Your task to perform on an android device: delete location history Image 0: 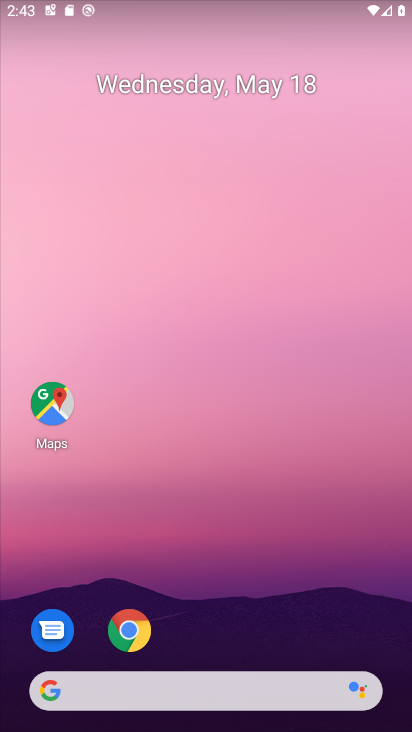
Step 0: drag from (208, 632) to (281, 97)
Your task to perform on an android device: delete location history Image 1: 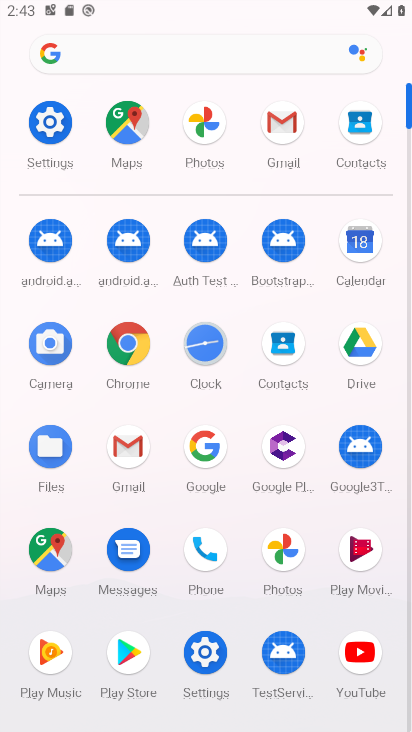
Step 1: click (47, 543)
Your task to perform on an android device: delete location history Image 2: 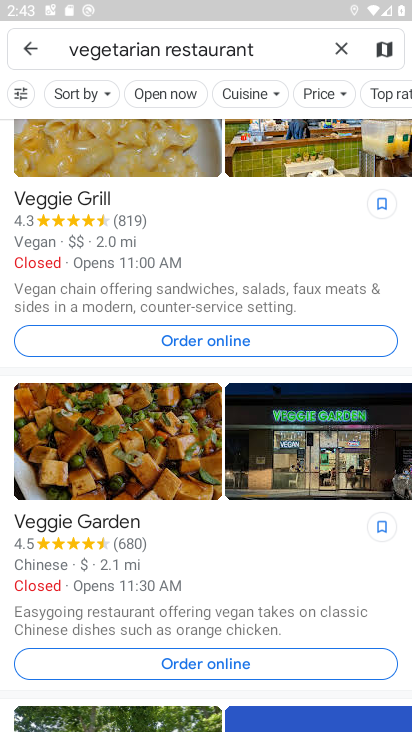
Step 2: click (36, 36)
Your task to perform on an android device: delete location history Image 3: 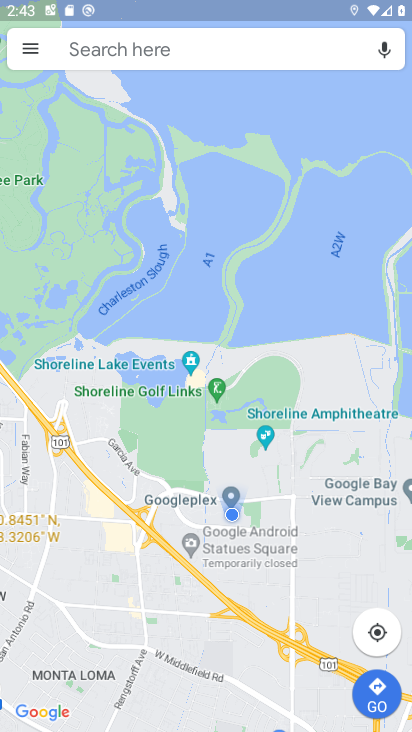
Step 3: click (34, 49)
Your task to perform on an android device: delete location history Image 4: 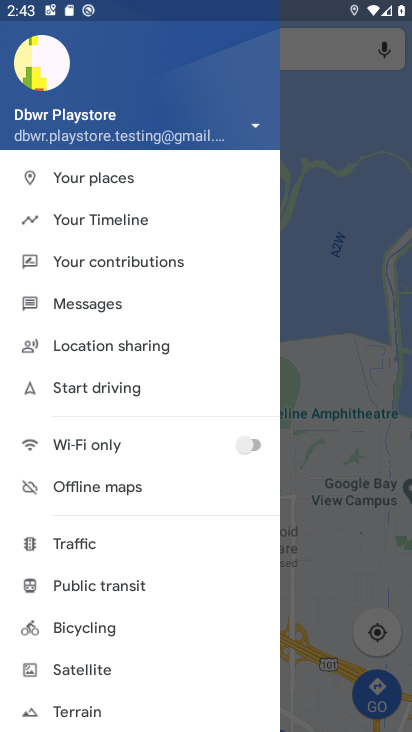
Step 4: click (106, 216)
Your task to perform on an android device: delete location history Image 5: 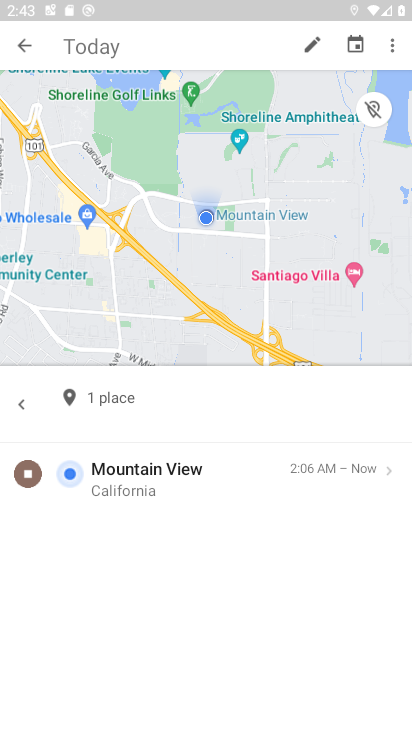
Step 5: click (390, 46)
Your task to perform on an android device: delete location history Image 6: 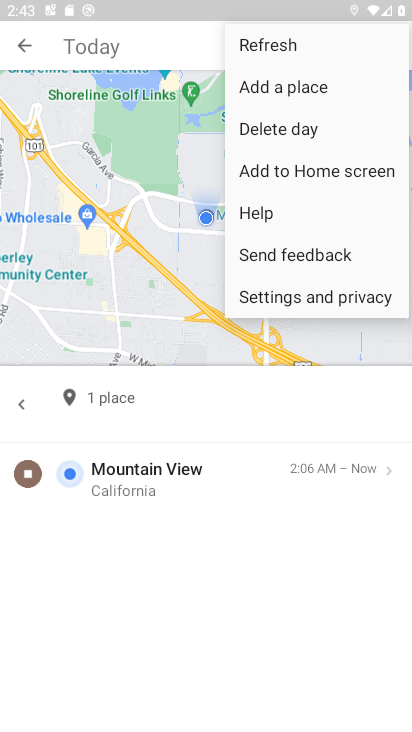
Step 6: click (285, 289)
Your task to perform on an android device: delete location history Image 7: 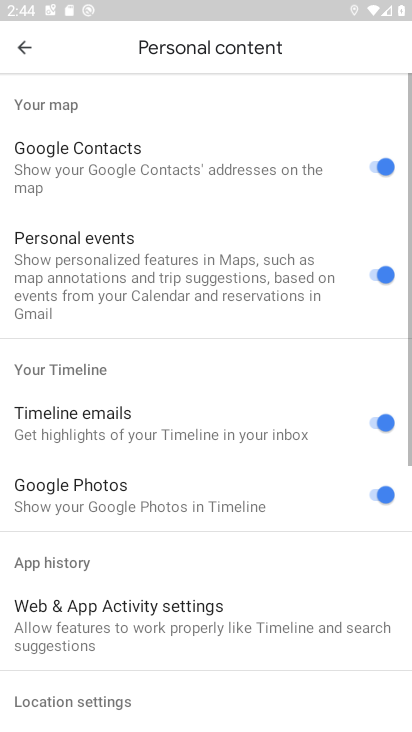
Step 7: drag from (189, 641) to (270, 336)
Your task to perform on an android device: delete location history Image 8: 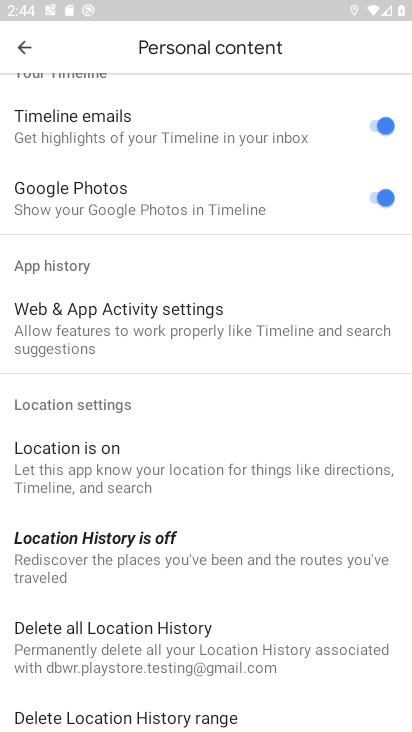
Step 8: click (167, 636)
Your task to perform on an android device: delete location history Image 9: 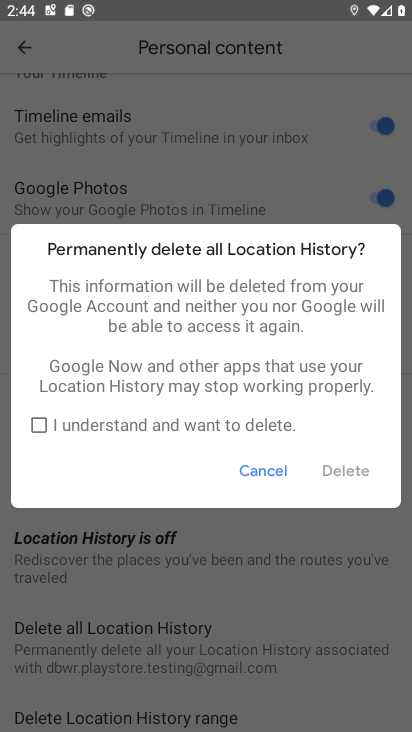
Step 9: click (41, 422)
Your task to perform on an android device: delete location history Image 10: 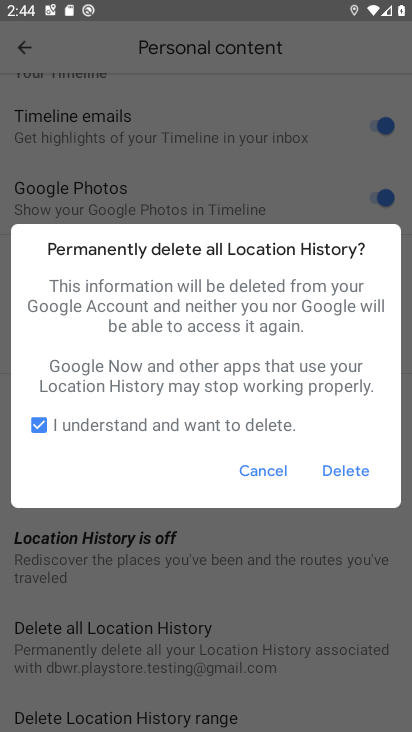
Step 10: click (341, 467)
Your task to perform on an android device: delete location history Image 11: 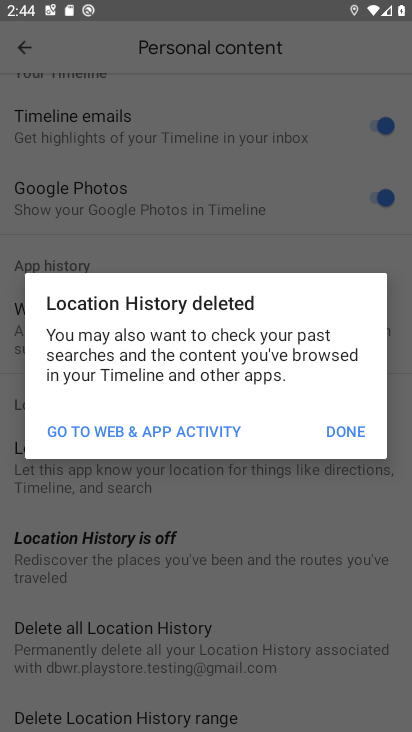
Step 11: click (344, 436)
Your task to perform on an android device: delete location history Image 12: 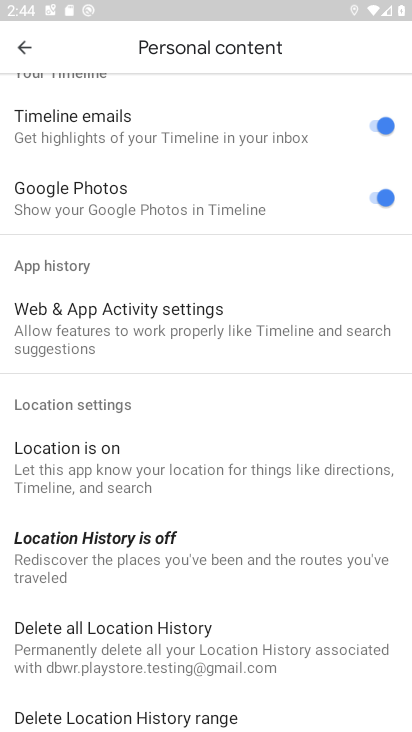
Step 12: task complete